Your task to perform on an android device: Google the capital of Venezuela Image 0: 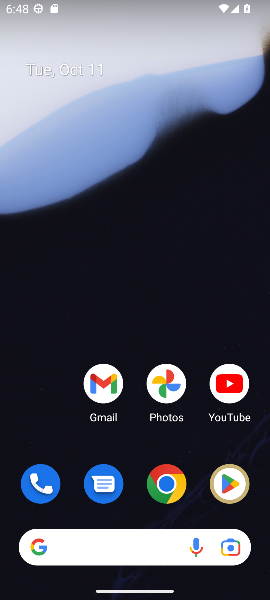
Step 0: drag from (87, 516) to (64, 74)
Your task to perform on an android device: Google the capital of Venezuela Image 1: 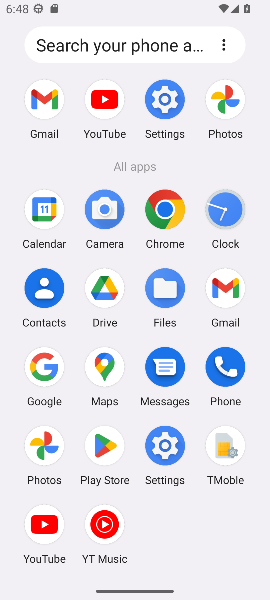
Step 1: click (171, 212)
Your task to perform on an android device: Google the capital of Venezuela Image 2: 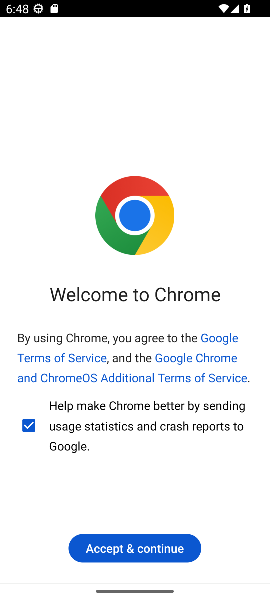
Step 2: click (110, 548)
Your task to perform on an android device: Google the capital of Venezuela Image 3: 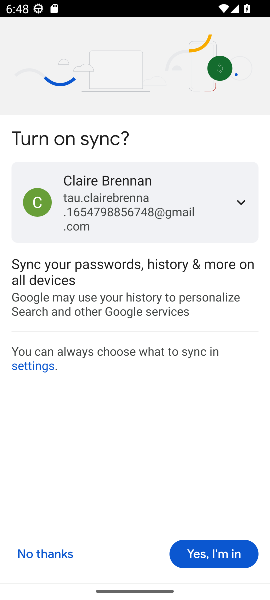
Step 3: click (211, 548)
Your task to perform on an android device: Google the capital of Venezuela Image 4: 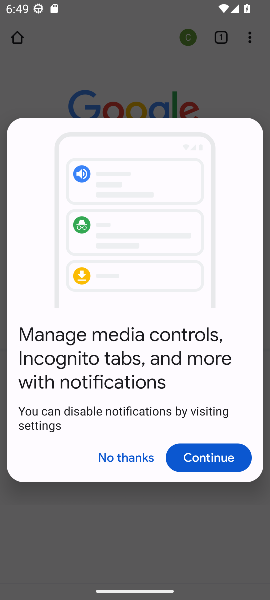
Step 4: click (199, 450)
Your task to perform on an android device: Google the capital of Venezuela Image 5: 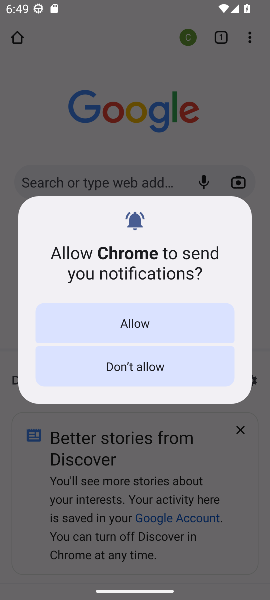
Step 5: click (125, 370)
Your task to perform on an android device: Google the capital of Venezuela Image 6: 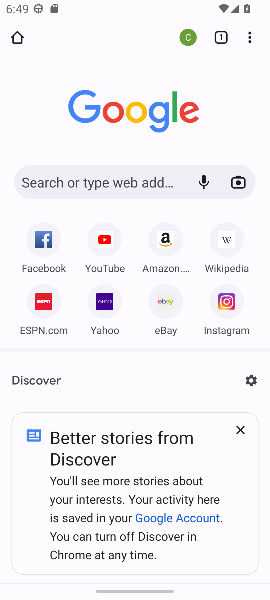
Step 6: click (130, 185)
Your task to perform on an android device: Google the capital of Venezuela Image 7: 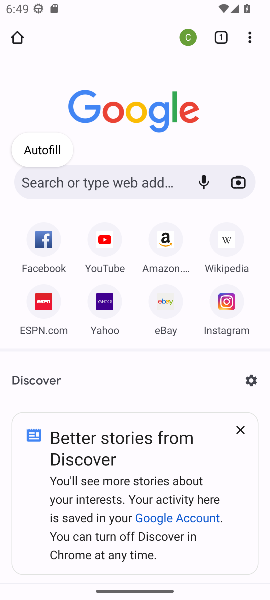
Step 7: click (131, 178)
Your task to perform on an android device: Google the capital of Venezuela Image 8: 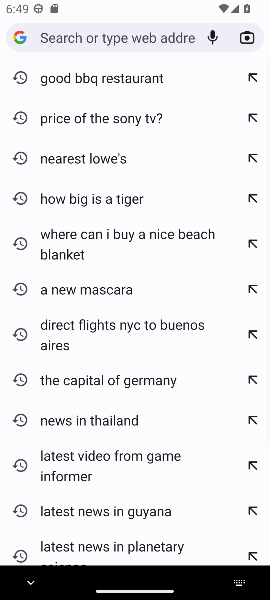
Step 8: type "capital of Venezuela"
Your task to perform on an android device: Google the capital of Venezuela Image 9: 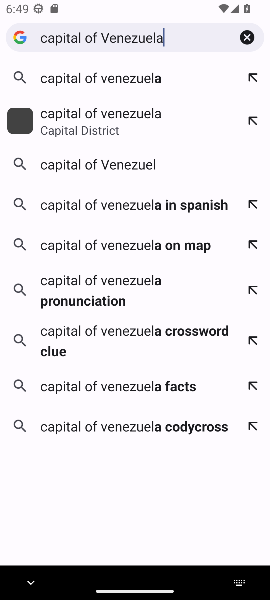
Step 9: press enter
Your task to perform on an android device: Google the capital of Venezuela Image 10: 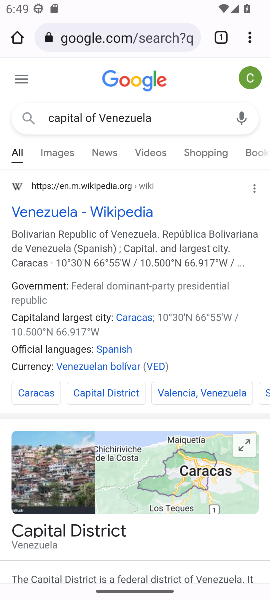
Step 10: task complete